Your task to perform on an android device: Show me popular videos on Youtube Image 0: 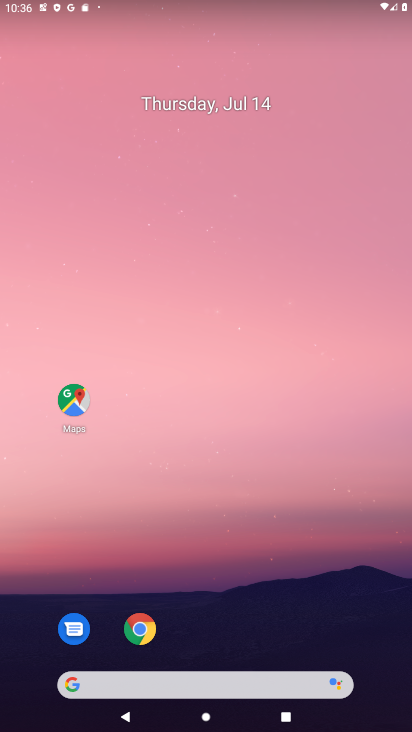
Step 0: drag from (22, 638) to (286, 86)
Your task to perform on an android device: Show me popular videos on Youtube Image 1: 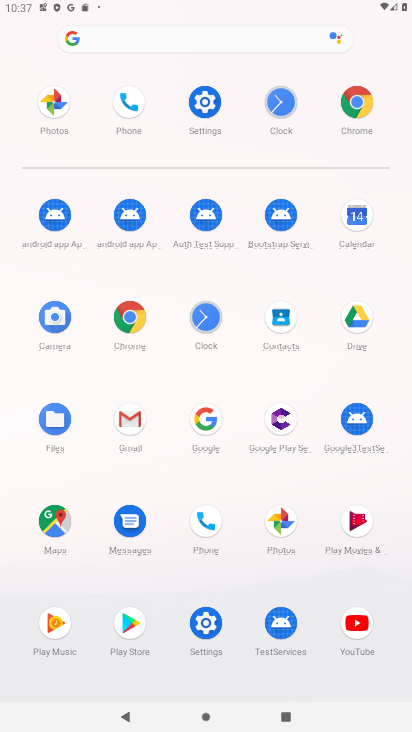
Step 1: click (348, 631)
Your task to perform on an android device: Show me popular videos on Youtube Image 2: 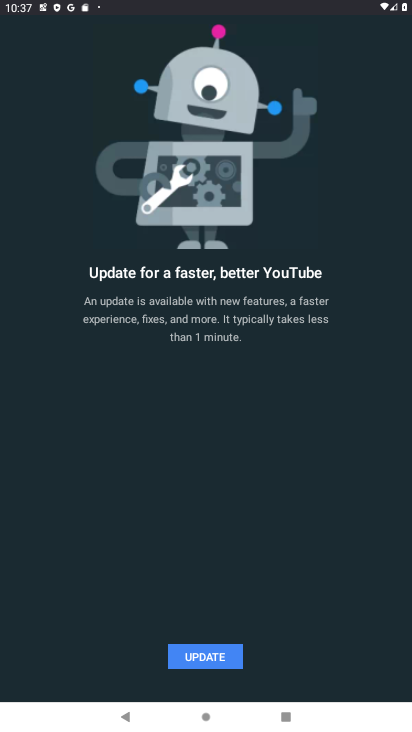
Step 2: task complete